Your task to perform on an android device: open the mobile data screen to see how much data has been used Image 0: 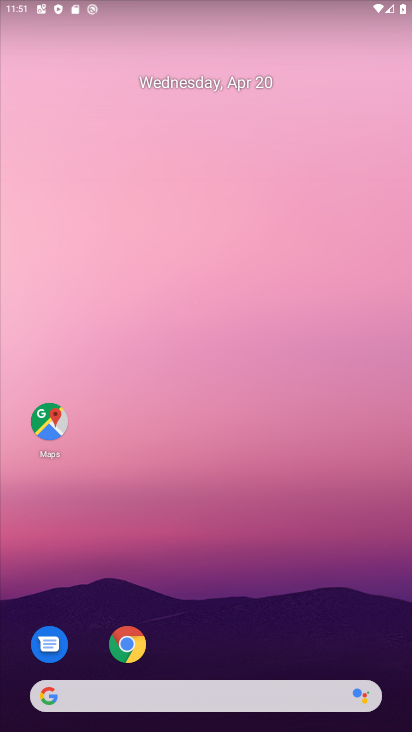
Step 0: drag from (362, 643) to (346, 97)
Your task to perform on an android device: open the mobile data screen to see how much data has been used Image 1: 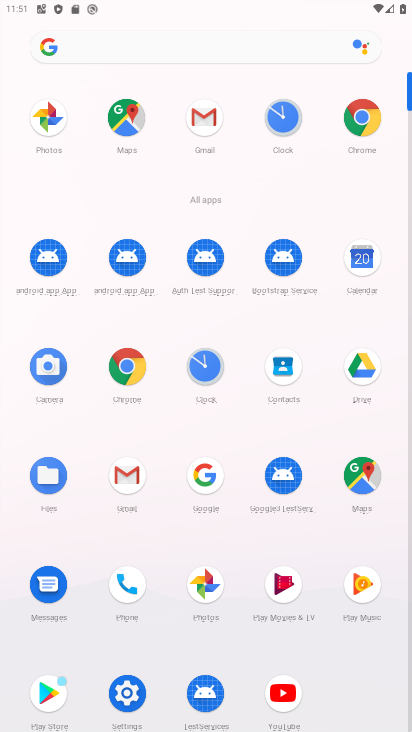
Step 1: click (124, 693)
Your task to perform on an android device: open the mobile data screen to see how much data has been used Image 2: 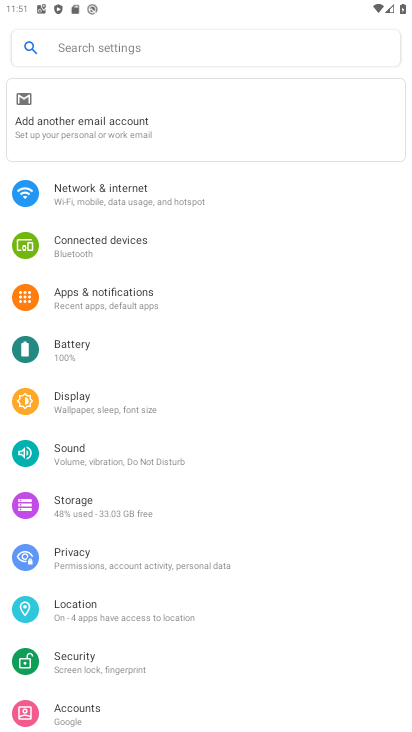
Step 2: click (103, 193)
Your task to perform on an android device: open the mobile data screen to see how much data has been used Image 3: 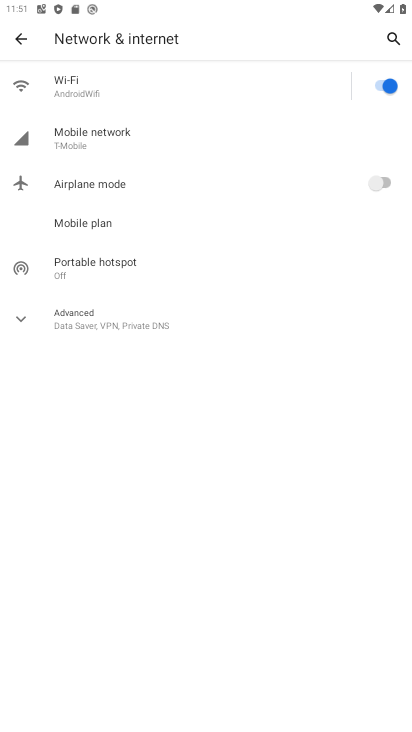
Step 3: click (87, 133)
Your task to perform on an android device: open the mobile data screen to see how much data has been used Image 4: 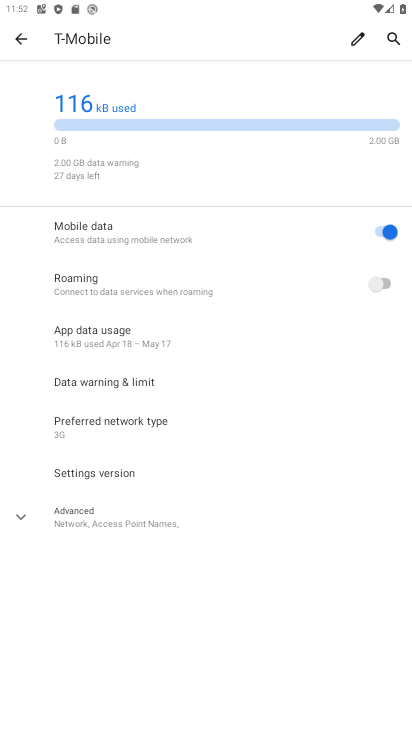
Step 4: click (18, 512)
Your task to perform on an android device: open the mobile data screen to see how much data has been used Image 5: 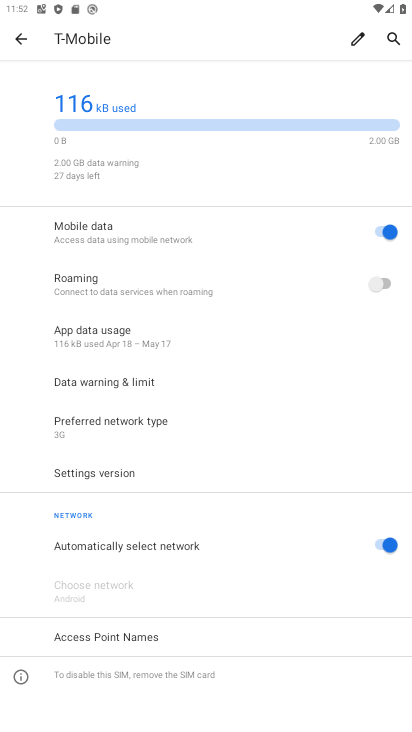
Step 5: task complete